Your task to perform on an android device: Go to Google maps Image 0: 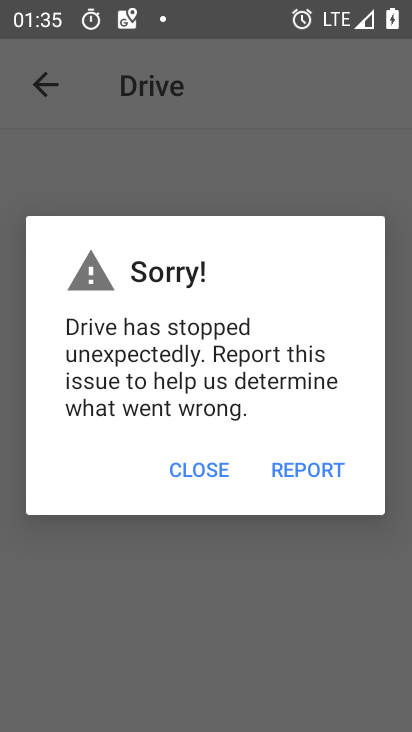
Step 0: press home button
Your task to perform on an android device: Go to Google maps Image 1: 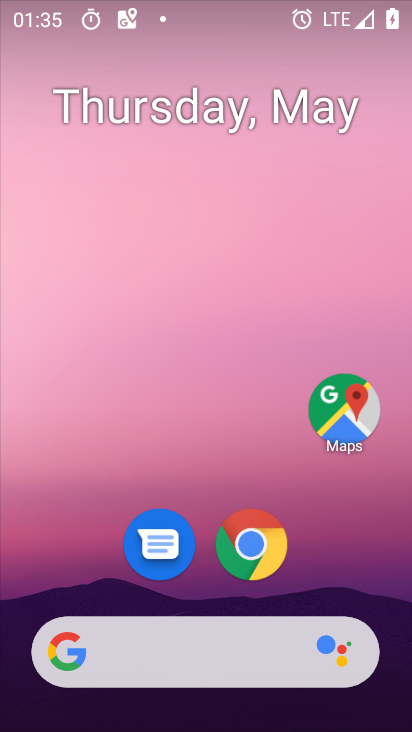
Step 1: drag from (369, 498) to (407, 35)
Your task to perform on an android device: Go to Google maps Image 2: 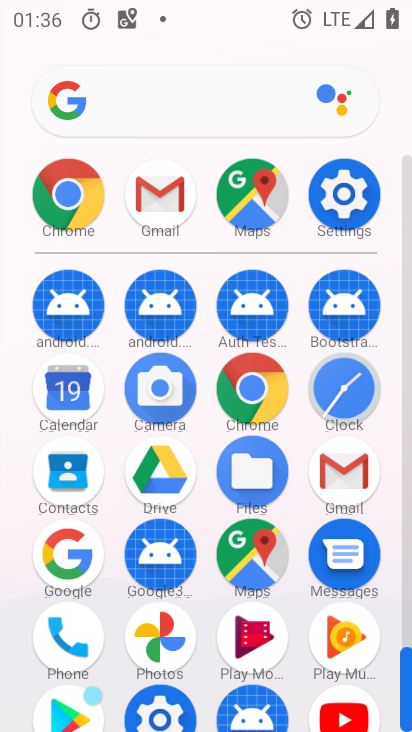
Step 2: drag from (264, 350) to (245, 98)
Your task to perform on an android device: Go to Google maps Image 3: 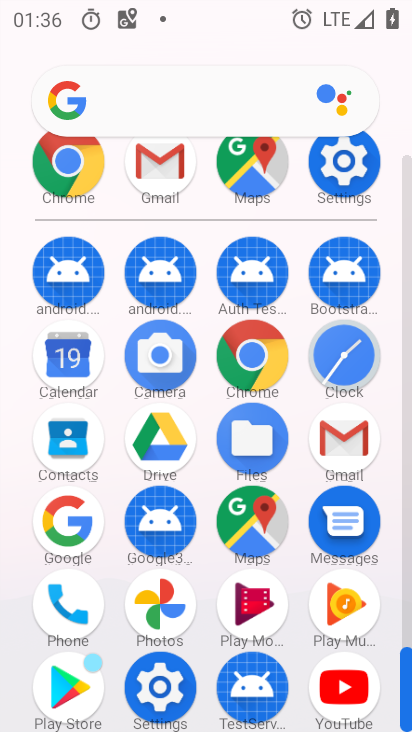
Step 3: click (247, 539)
Your task to perform on an android device: Go to Google maps Image 4: 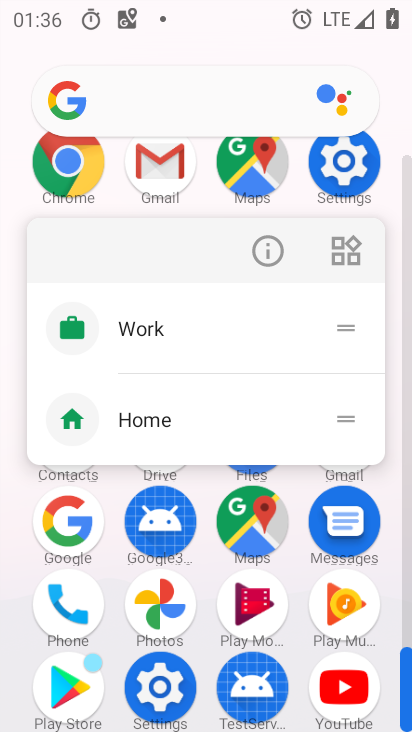
Step 4: click (260, 537)
Your task to perform on an android device: Go to Google maps Image 5: 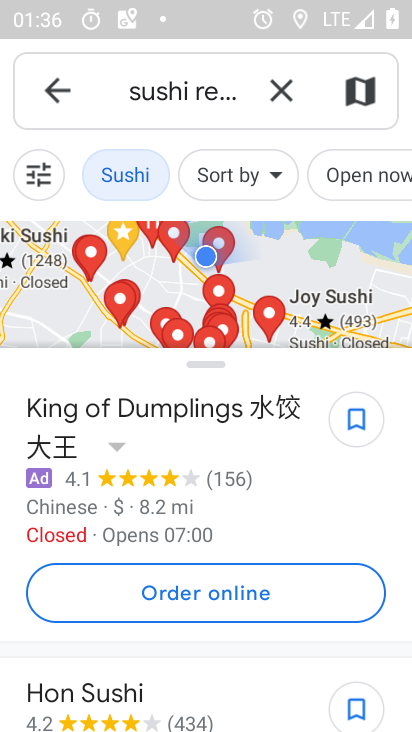
Step 5: task complete